Your task to perform on an android device: Open calendar and show me the first week of next month Image 0: 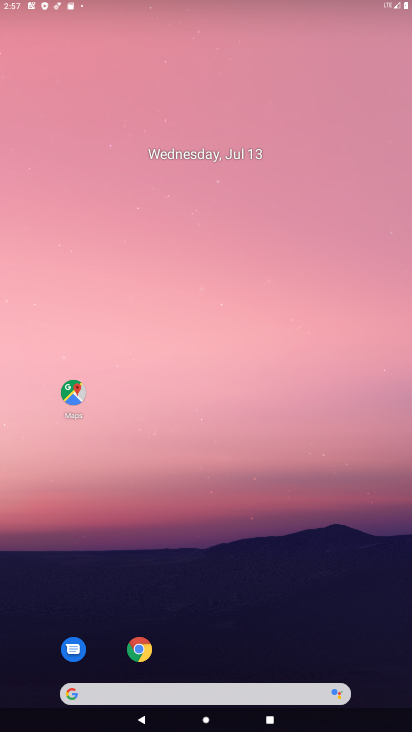
Step 0: click (232, 123)
Your task to perform on an android device: Open calendar and show me the first week of next month Image 1: 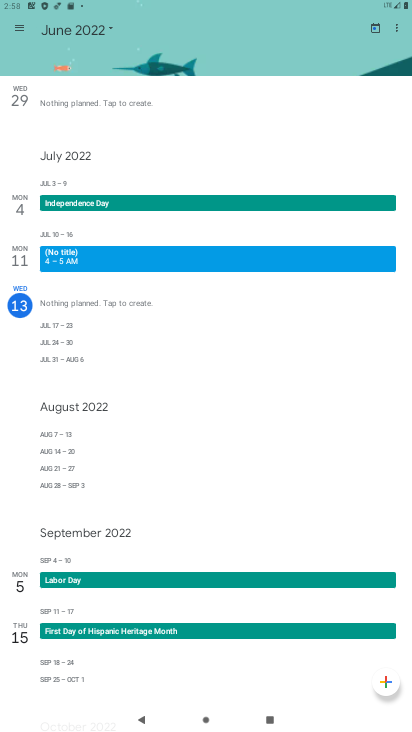
Step 1: click (18, 22)
Your task to perform on an android device: Open calendar and show me the first week of next month Image 2: 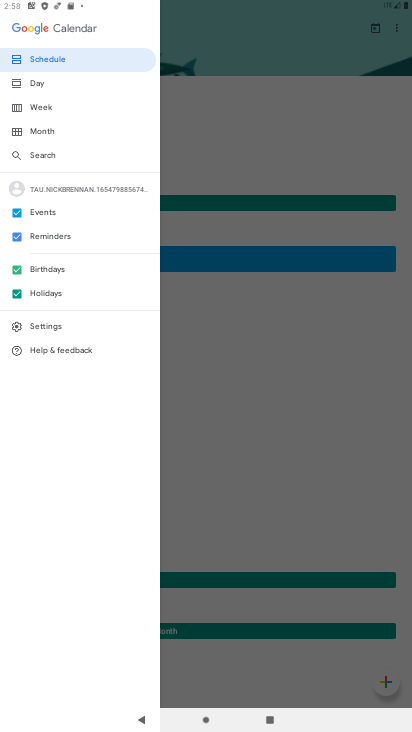
Step 2: click (47, 106)
Your task to perform on an android device: Open calendar and show me the first week of next month Image 3: 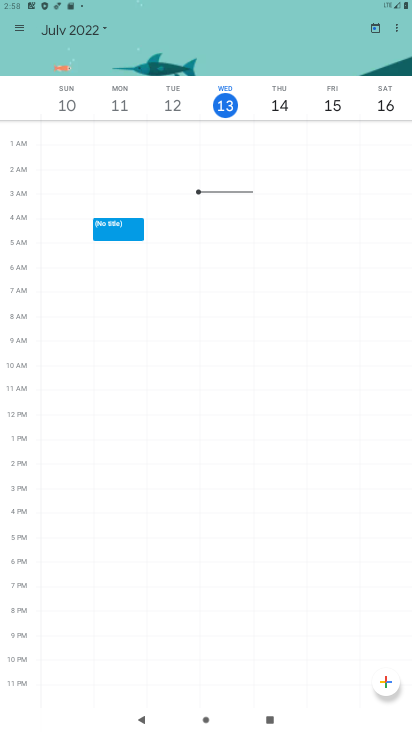
Step 3: click (97, 22)
Your task to perform on an android device: Open calendar and show me the first week of next month Image 4: 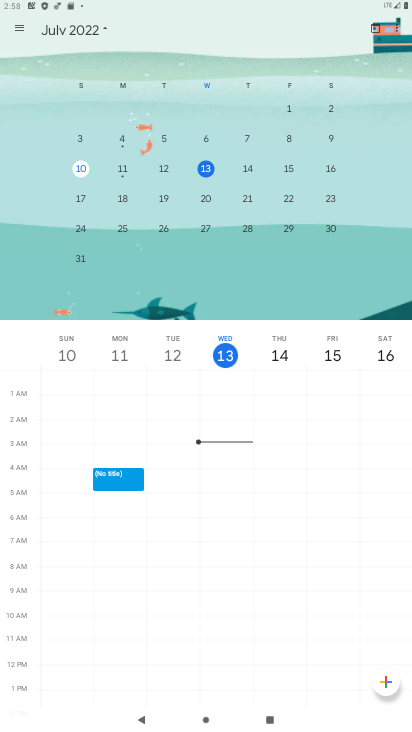
Step 4: drag from (291, 191) to (1, 200)
Your task to perform on an android device: Open calendar and show me the first week of next month Image 5: 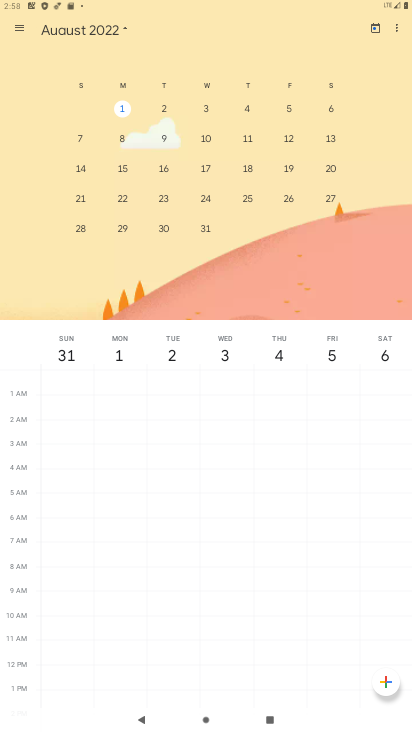
Step 5: click (126, 110)
Your task to perform on an android device: Open calendar and show me the first week of next month Image 6: 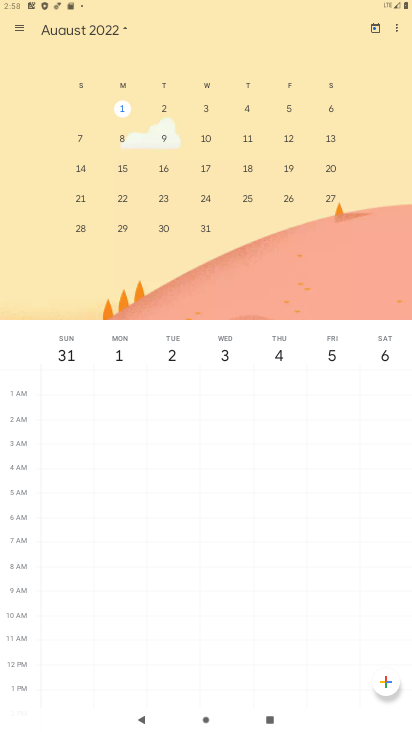
Step 6: task complete